Your task to perform on an android device: Turn on the flashlight Image 0: 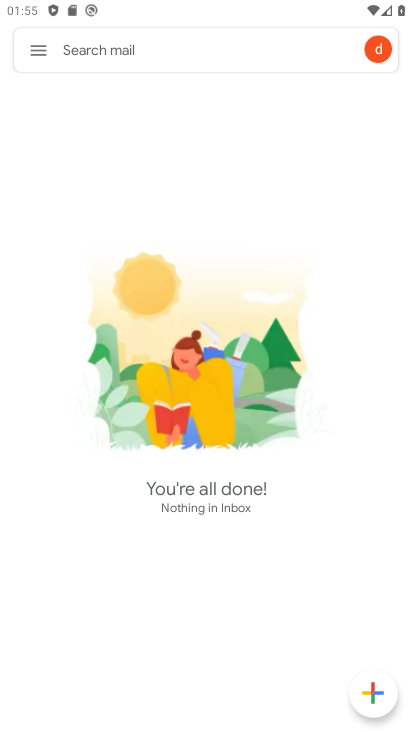
Step 0: drag from (201, 632) to (164, 116)
Your task to perform on an android device: Turn on the flashlight Image 1: 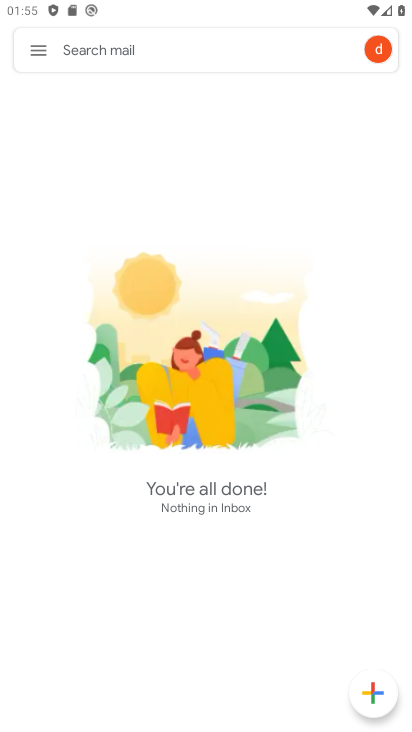
Step 1: press back button
Your task to perform on an android device: Turn on the flashlight Image 2: 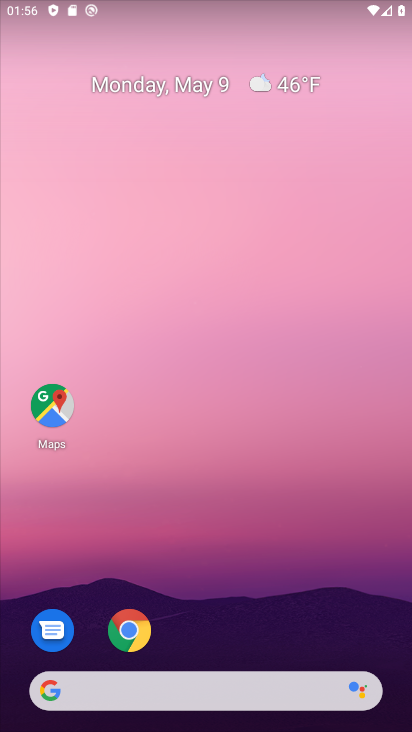
Step 2: drag from (245, 565) to (251, 107)
Your task to perform on an android device: Turn on the flashlight Image 3: 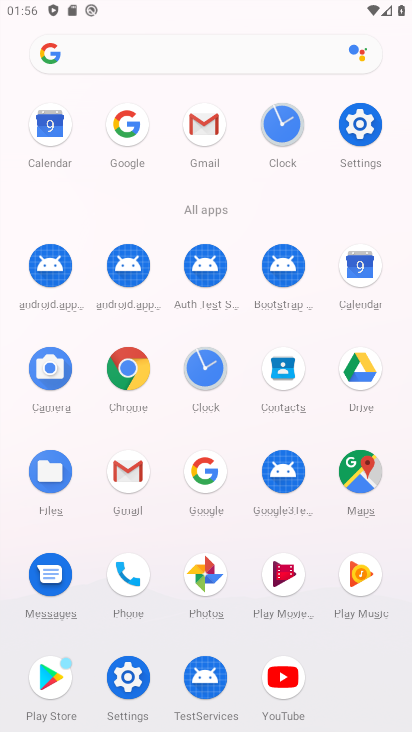
Step 3: click (361, 122)
Your task to perform on an android device: Turn on the flashlight Image 4: 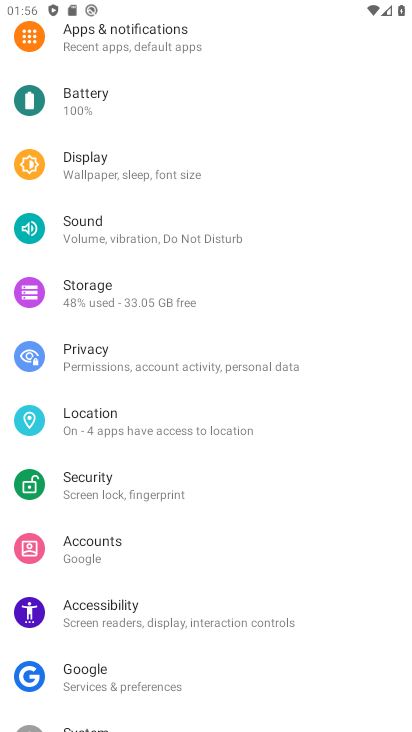
Step 4: drag from (229, 187) to (216, 335)
Your task to perform on an android device: Turn on the flashlight Image 5: 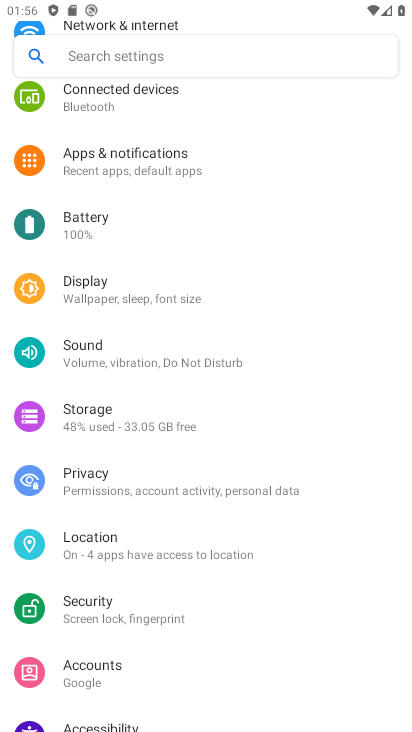
Step 5: drag from (197, 160) to (210, 324)
Your task to perform on an android device: Turn on the flashlight Image 6: 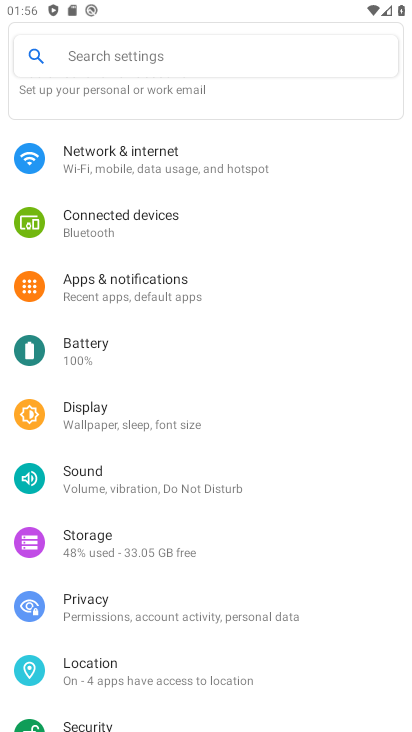
Step 6: drag from (148, 189) to (200, 357)
Your task to perform on an android device: Turn on the flashlight Image 7: 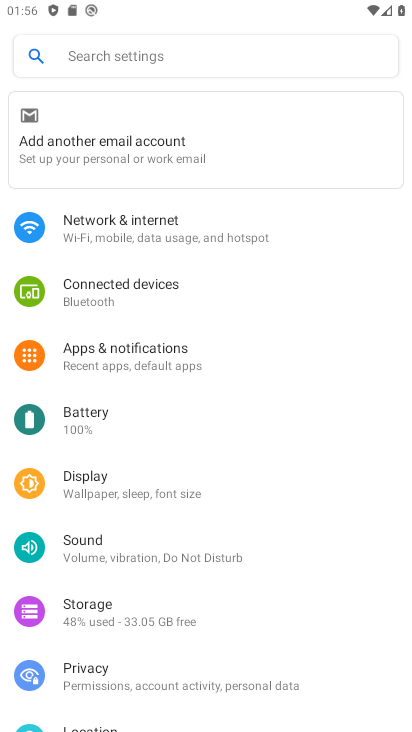
Step 7: drag from (194, 402) to (177, 280)
Your task to perform on an android device: Turn on the flashlight Image 8: 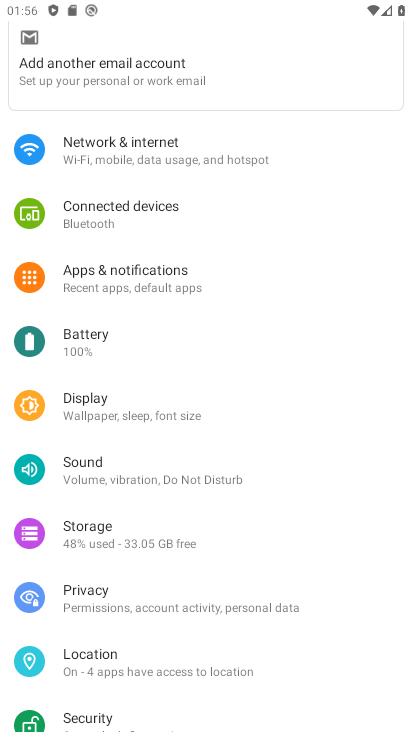
Step 8: drag from (127, 370) to (140, 263)
Your task to perform on an android device: Turn on the flashlight Image 9: 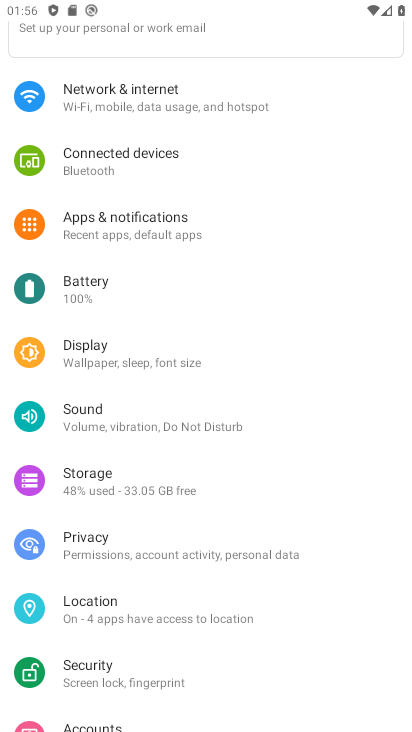
Step 9: drag from (94, 463) to (136, 352)
Your task to perform on an android device: Turn on the flashlight Image 10: 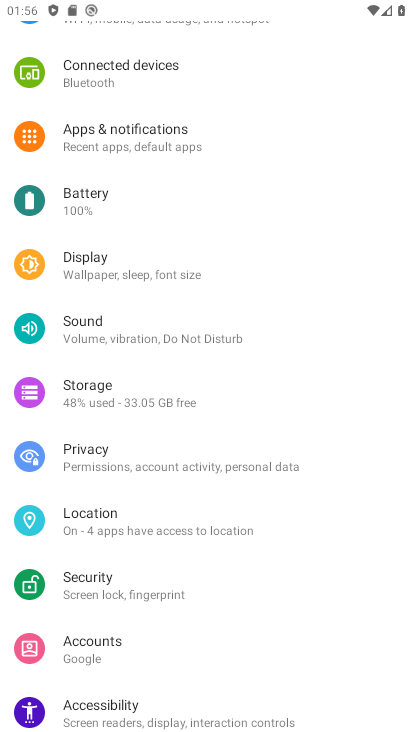
Step 10: click (158, 276)
Your task to perform on an android device: Turn on the flashlight Image 11: 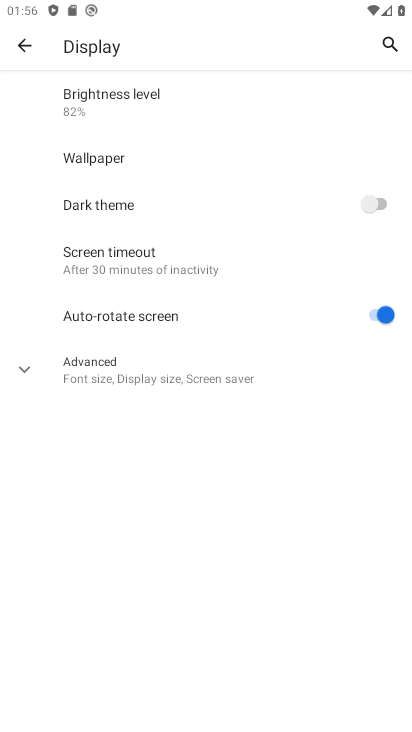
Step 11: click (133, 373)
Your task to perform on an android device: Turn on the flashlight Image 12: 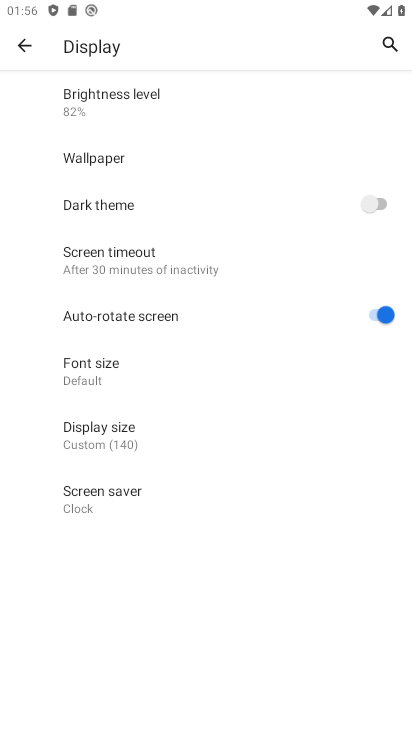
Step 12: drag from (117, 418) to (126, 295)
Your task to perform on an android device: Turn on the flashlight Image 13: 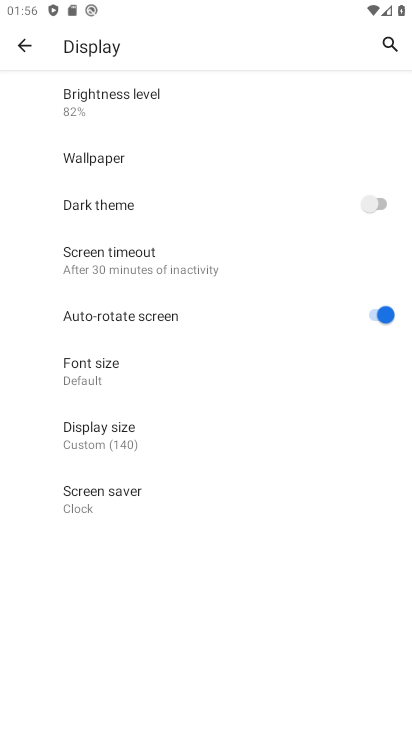
Step 13: press back button
Your task to perform on an android device: Turn on the flashlight Image 14: 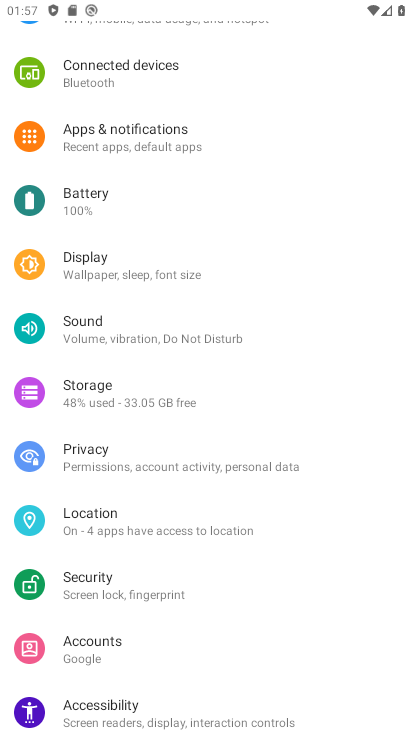
Step 14: press back button
Your task to perform on an android device: Turn on the flashlight Image 15: 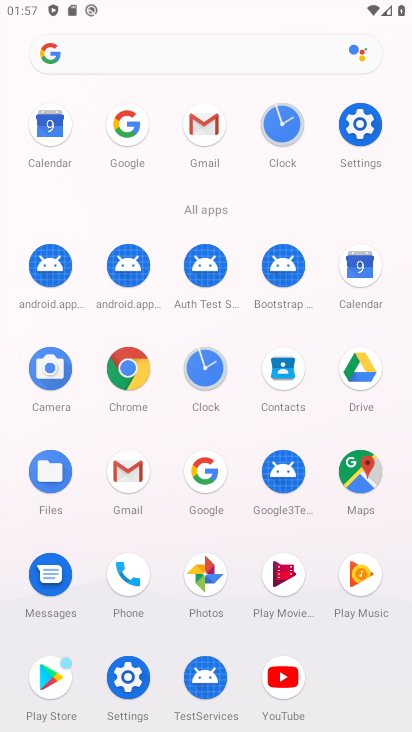
Step 15: click (361, 124)
Your task to perform on an android device: Turn on the flashlight Image 16: 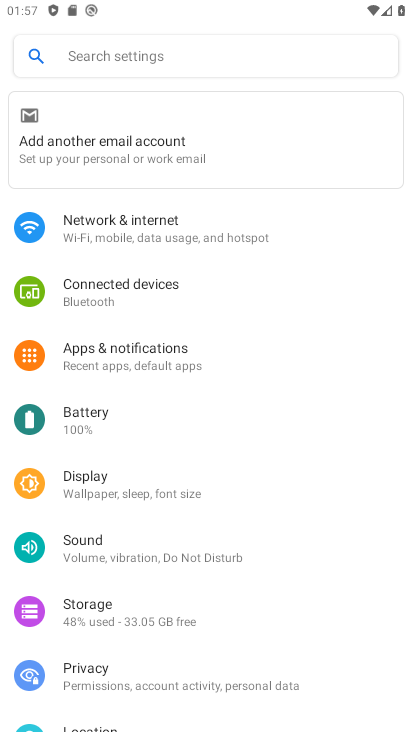
Step 16: click (200, 483)
Your task to perform on an android device: Turn on the flashlight Image 17: 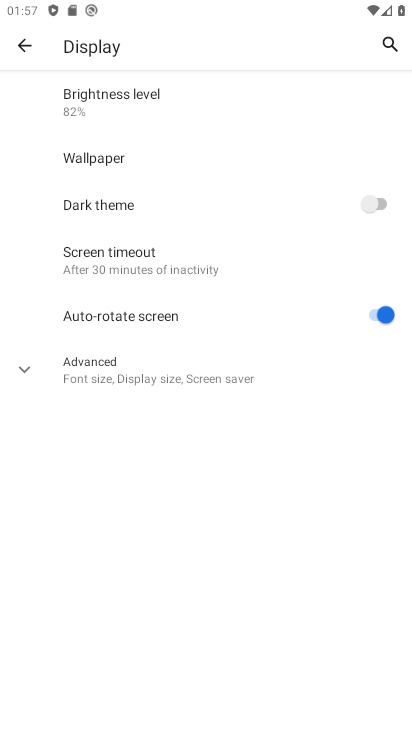
Step 17: press back button
Your task to perform on an android device: Turn on the flashlight Image 18: 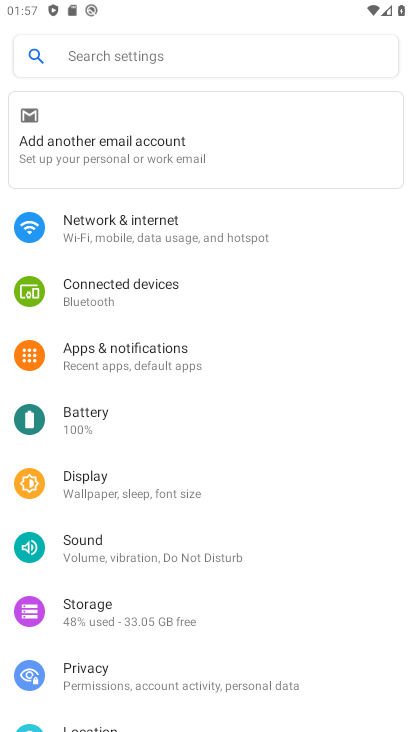
Step 18: drag from (198, 520) to (211, 450)
Your task to perform on an android device: Turn on the flashlight Image 19: 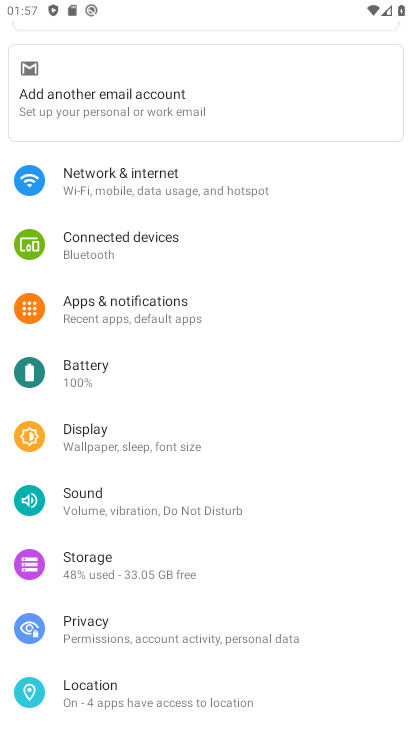
Step 19: drag from (199, 526) to (240, 429)
Your task to perform on an android device: Turn on the flashlight Image 20: 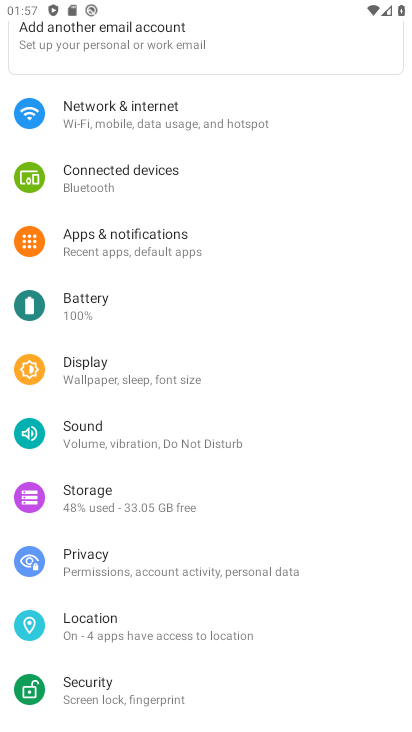
Step 20: drag from (230, 540) to (216, 467)
Your task to perform on an android device: Turn on the flashlight Image 21: 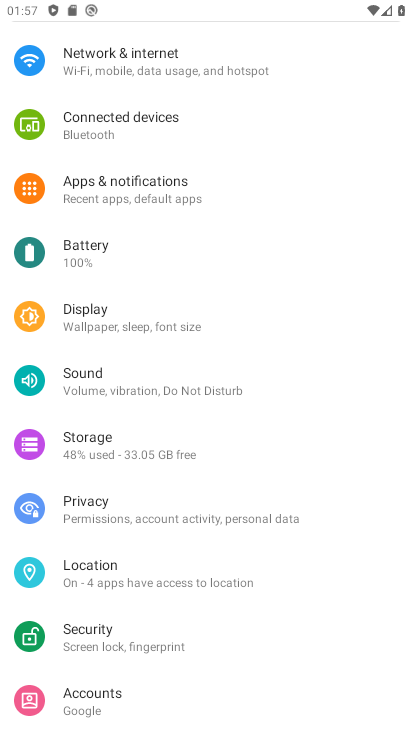
Step 21: drag from (192, 500) to (192, 387)
Your task to perform on an android device: Turn on the flashlight Image 22: 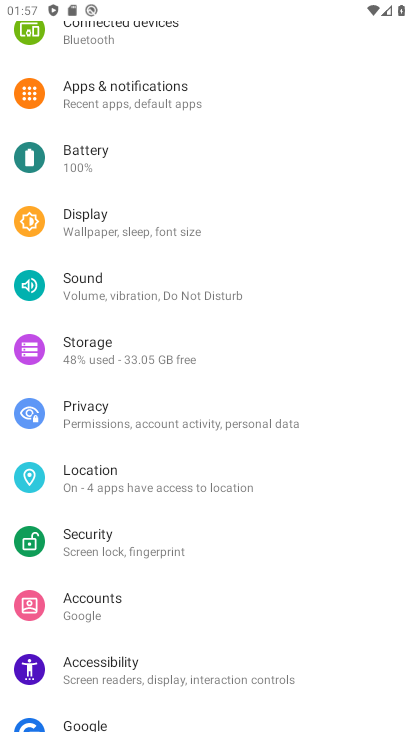
Step 22: drag from (166, 513) to (230, 398)
Your task to perform on an android device: Turn on the flashlight Image 23: 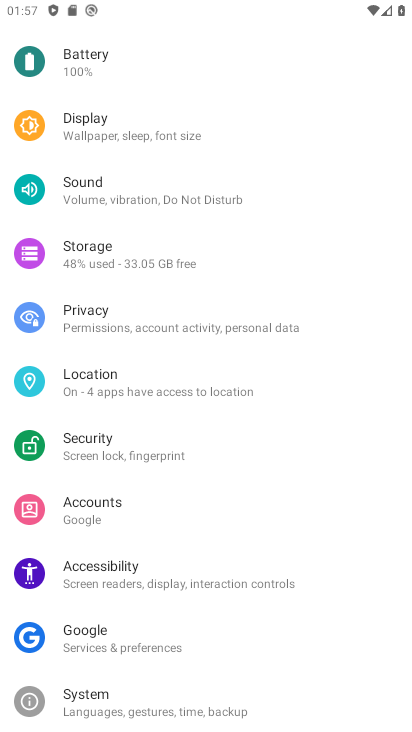
Step 23: drag from (161, 510) to (205, 383)
Your task to perform on an android device: Turn on the flashlight Image 24: 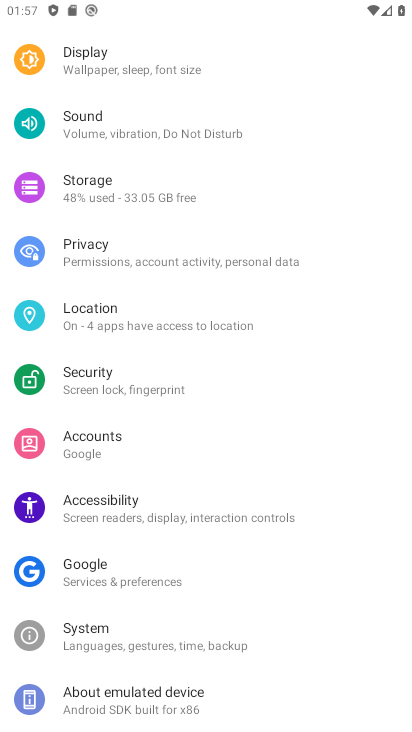
Step 24: drag from (153, 525) to (206, 426)
Your task to perform on an android device: Turn on the flashlight Image 25: 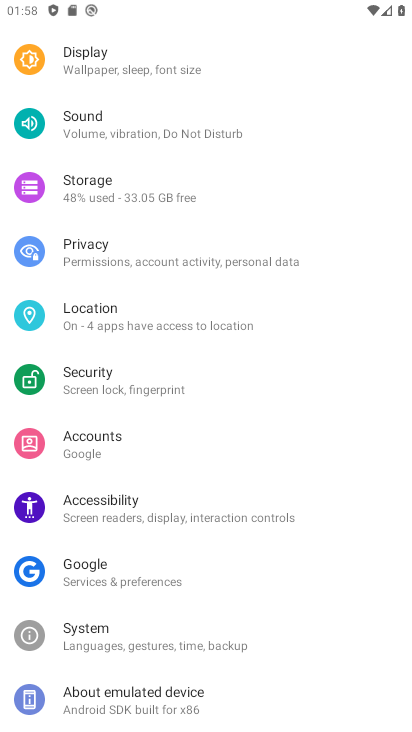
Step 25: click (126, 509)
Your task to perform on an android device: Turn on the flashlight Image 26: 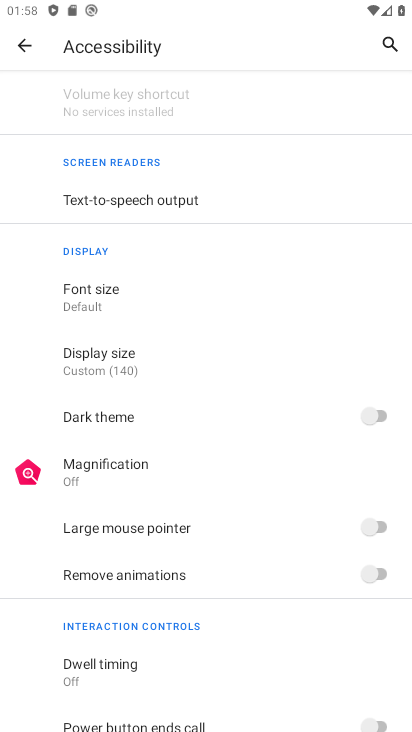
Step 26: task complete